Your task to perform on an android device: change notifications settings Image 0: 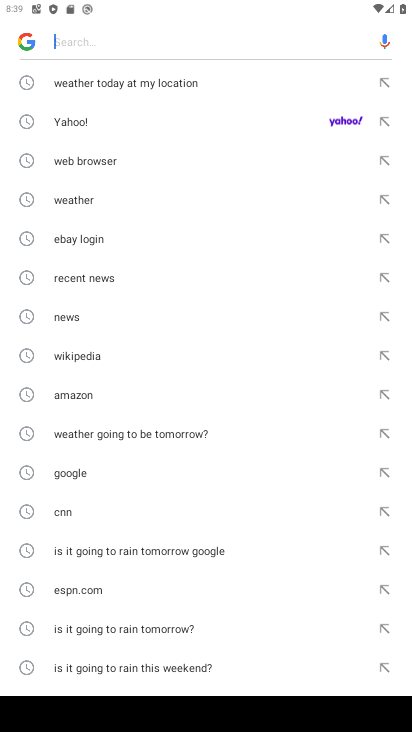
Step 0: press home button
Your task to perform on an android device: change notifications settings Image 1: 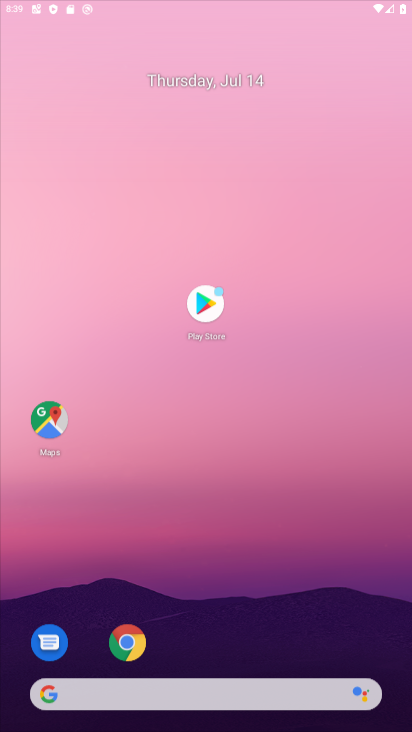
Step 1: drag from (168, 635) to (197, 82)
Your task to perform on an android device: change notifications settings Image 2: 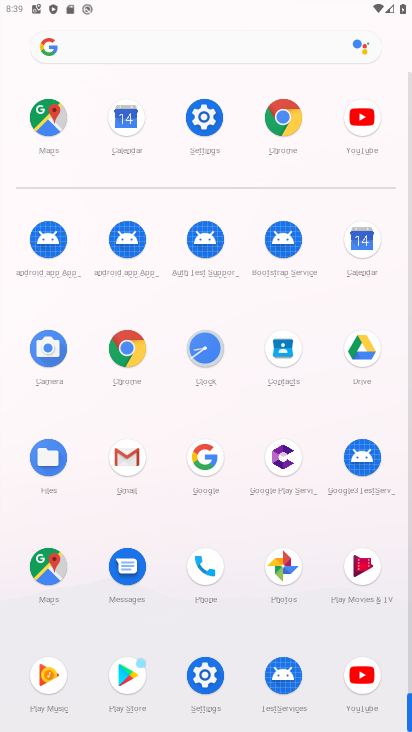
Step 2: click (201, 668)
Your task to perform on an android device: change notifications settings Image 3: 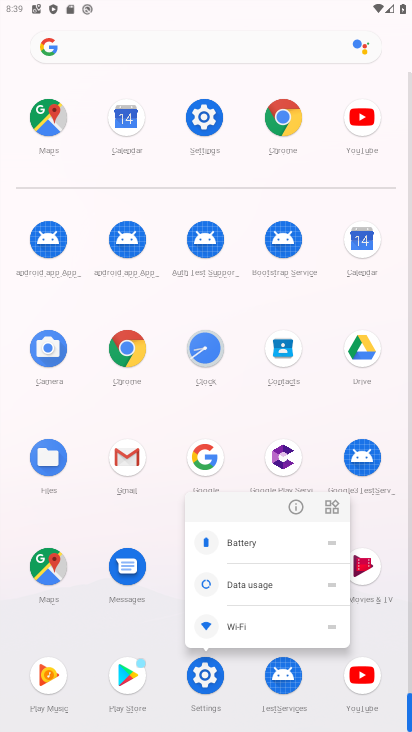
Step 3: click (297, 501)
Your task to perform on an android device: change notifications settings Image 4: 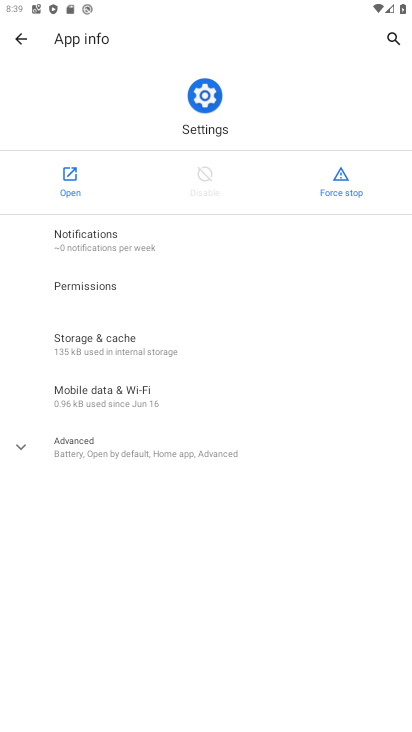
Step 4: drag from (173, 569) to (205, 338)
Your task to perform on an android device: change notifications settings Image 5: 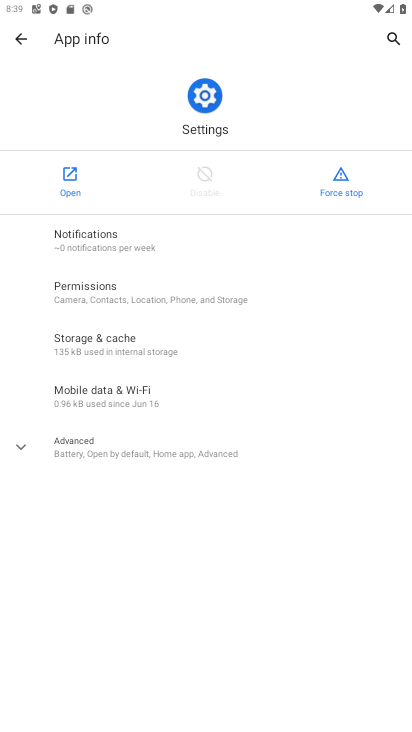
Step 5: click (63, 184)
Your task to perform on an android device: change notifications settings Image 6: 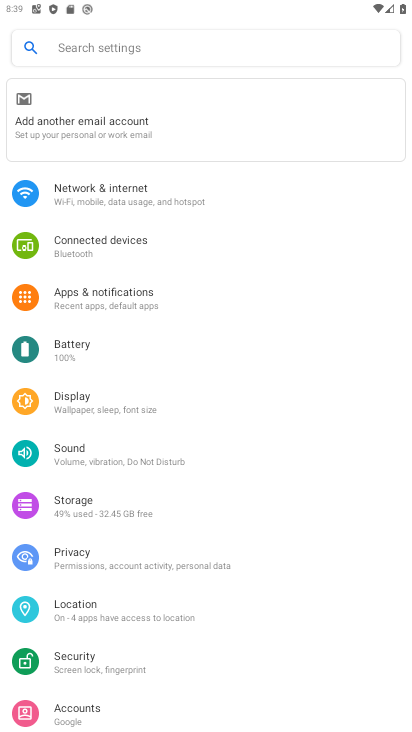
Step 6: drag from (211, 670) to (269, 259)
Your task to perform on an android device: change notifications settings Image 7: 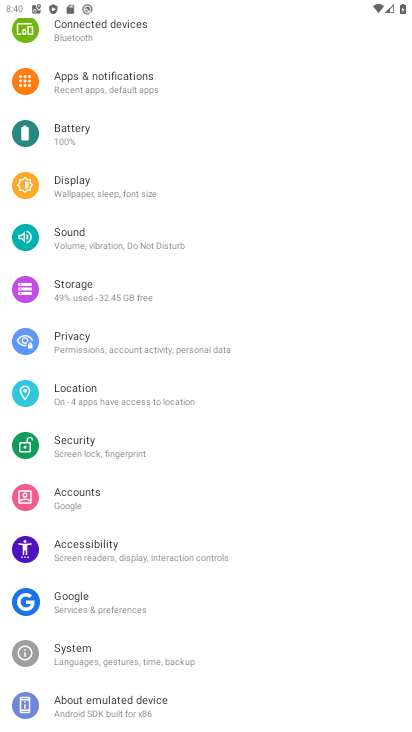
Step 7: drag from (216, 186) to (161, 589)
Your task to perform on an android device: change notifications settings Image 8: 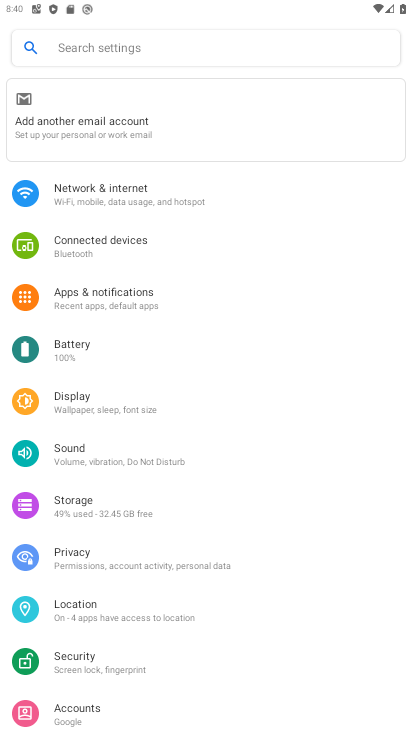
Step 8: click (74, 288)
Your task to perform on an android device: change notifications settings Image 9: 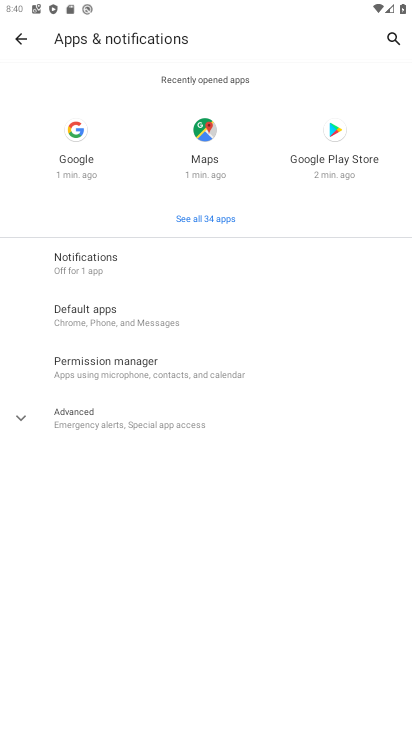
Step 9: click (114, 248)
Your task to perform on an android device: change notifications settings Image 10: 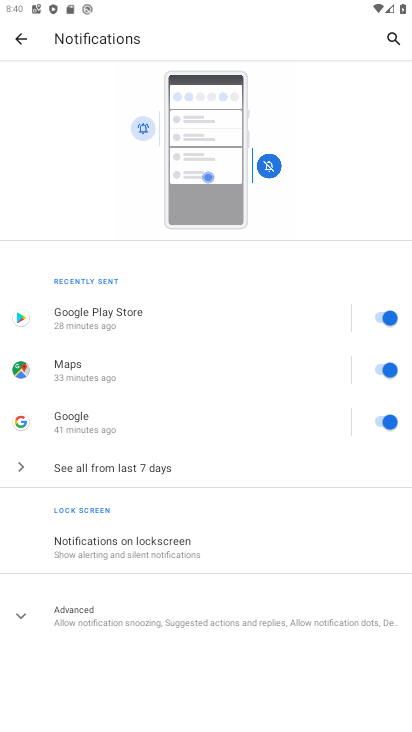
Step 10: drag from (228, 645) to (248, 346)
Your task to perform on an android device: change notifications settings Image 11: 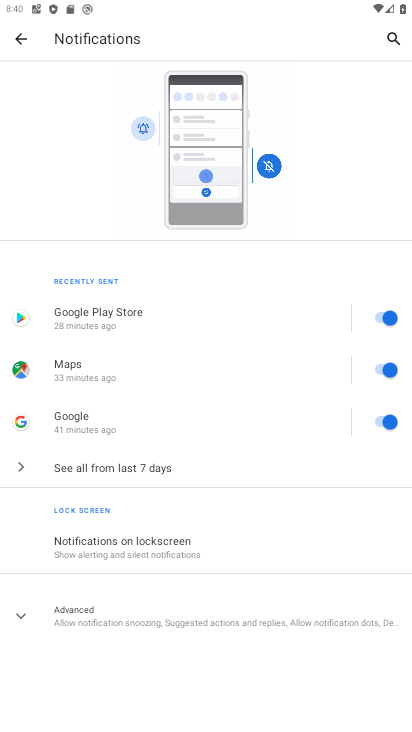
Step 11: click (96, 619)
Your task to perform on an android device: change notifications settings Image 12: 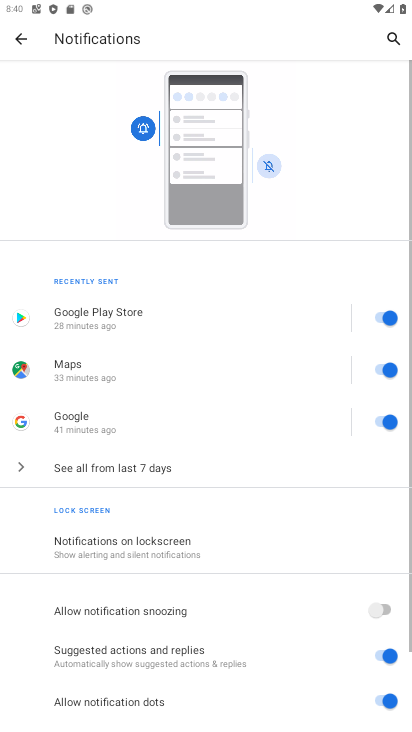
Step 12: drag from (147, 618) to (247, 291)
Your task to perform on an android device: change notifications settings Image 13: 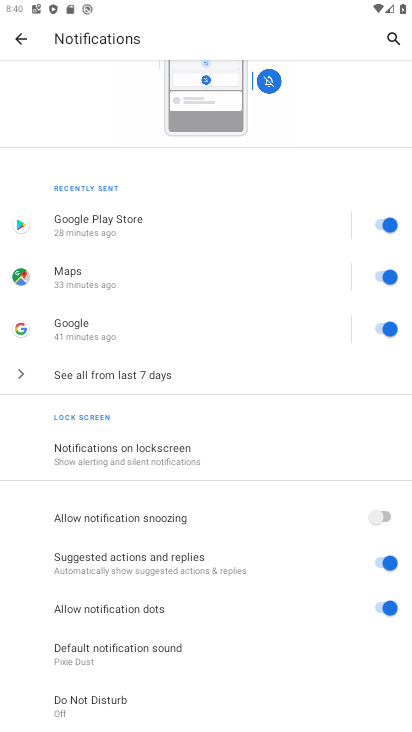
Step 13: click (390, 281)
Your task to perform on an android device: change notifications settings Image 14: 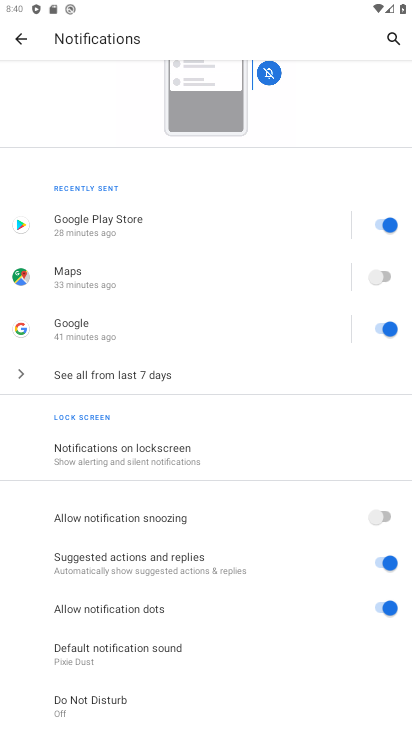
Step 14: task complete